Your task to perform on an android device: turn pop-ups on in chrome Image 0: 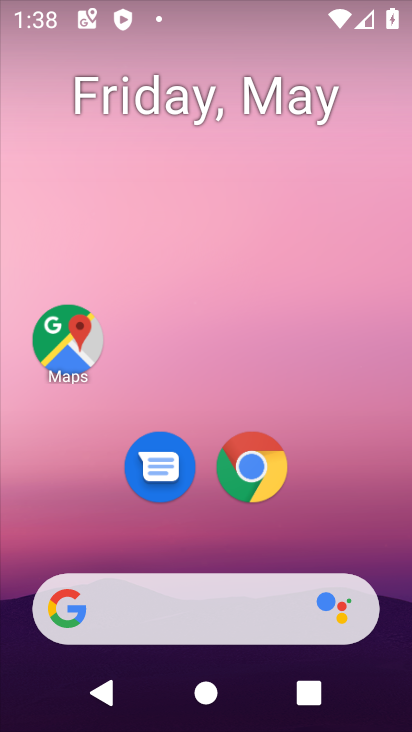
Step 0: click (253, 471)
Your task to perform on an android device: turn pop-ups on in chrome Image 1: 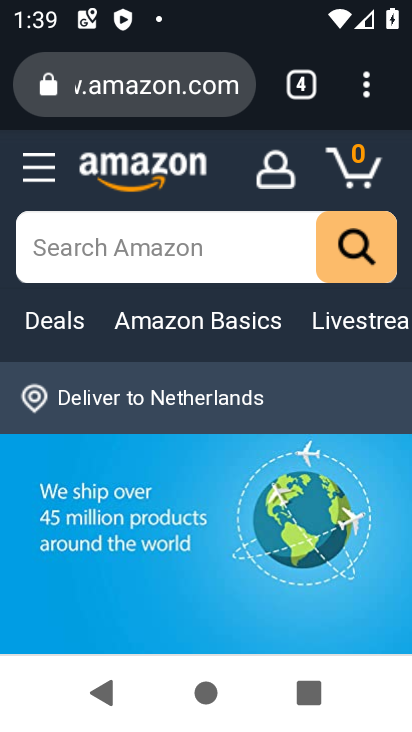
Step 1: click (367, 86)
Your task to perform on an android device: turn pop-ups on in chrome Image 2: 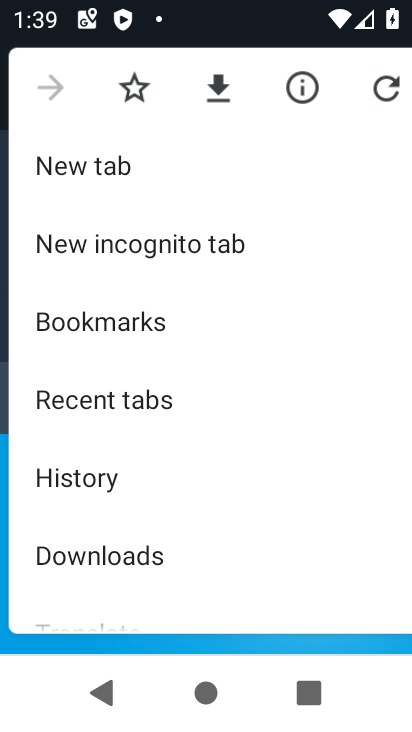
Step 2: drag from (192, 504) to (196, 304)
Your task to perform on an android device: turn pop-ups on in chrome Image 3: 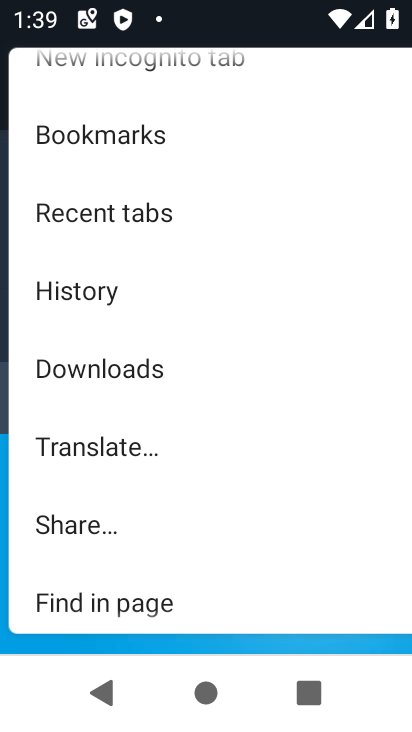
Step 3: drag from (183, 509) to (181, 331)
Your task to perform on an android device: turn pop-ups on in chrome Image 4: 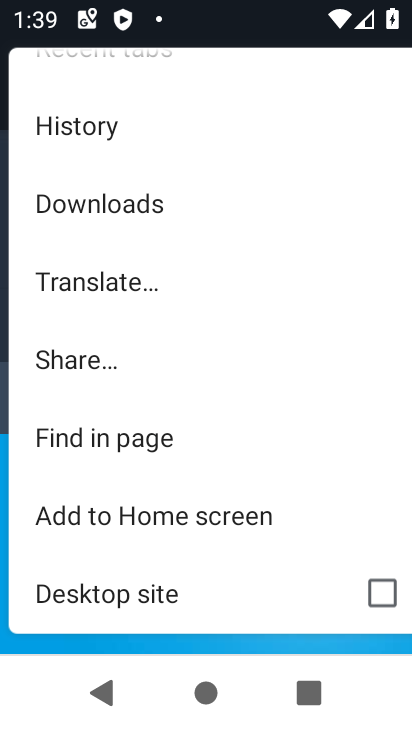
Step 4: drag from (179, 551) to (263, 380)
Your task to perform on an android device: turn pop-ups on in chrome Image 5: 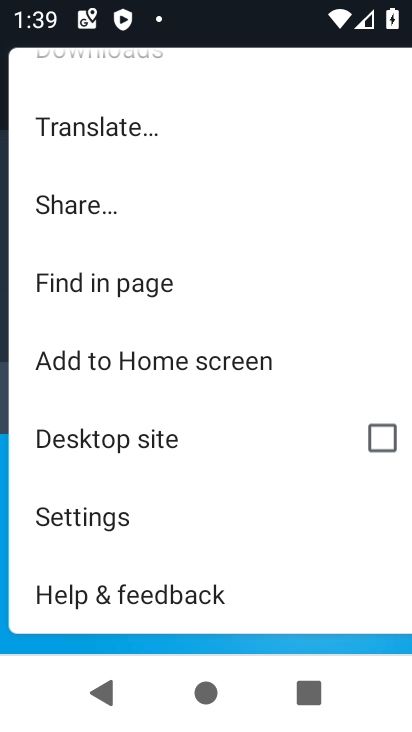
Step 5: click (114, 516)
Your task to perform on an android device: turn pop-ups on in chrome Image 6: 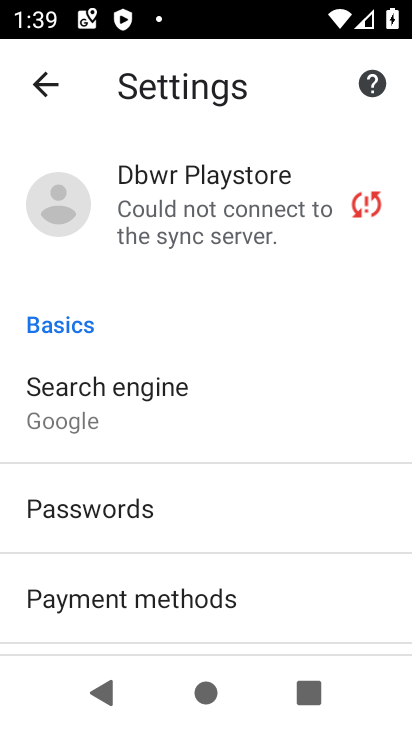
Step 6: drag from (173, 524) to (270, 395)
Your task to perform on an android device: turn pop-ups on in chrome Image 7: 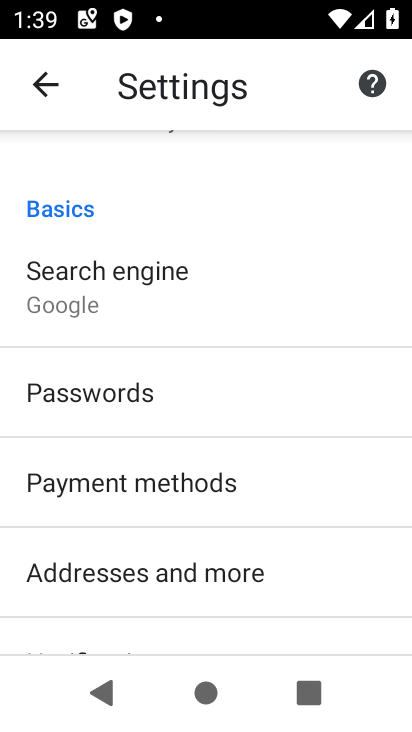
Step 7: drag from (194, 551) to (244, 444)
Your task to perform on an android device: turn pop-ups on in chrome Image 8: 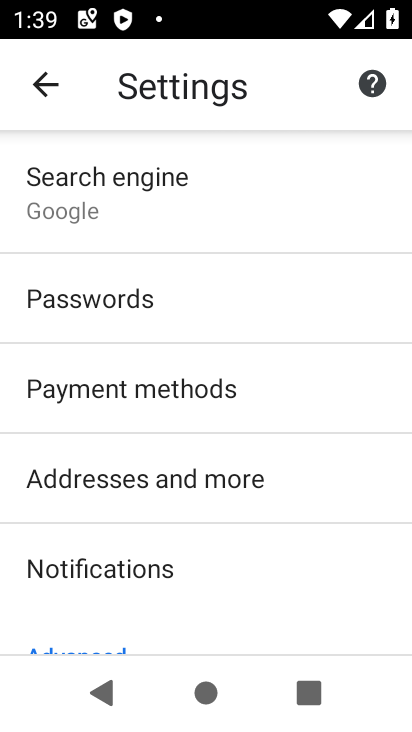
Step 8: drag from (187, 539) to (263, 419)
Your task to perform on an android device: turn pop-ups on in chrome Image 9: 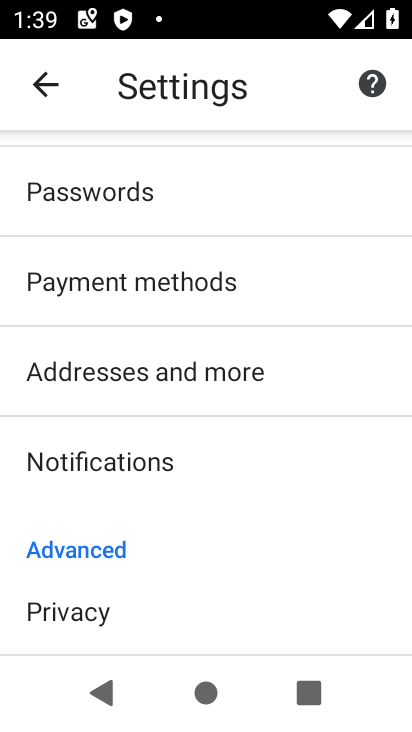
Step 9: drag from (215, 549) to (293, 407)
Your task to perform on an android device: turn pop-ups on in chrome Image 10: 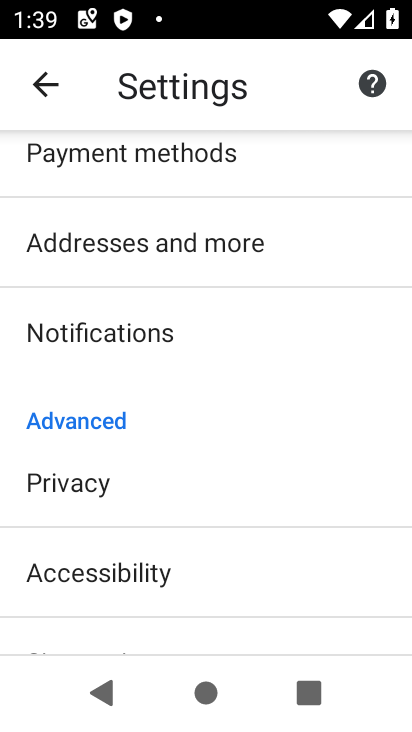
Step 10: drag from (173, 505) to (265, 351)
Your task to perform on an android device: turn pop-ups on in chrome Image 11: 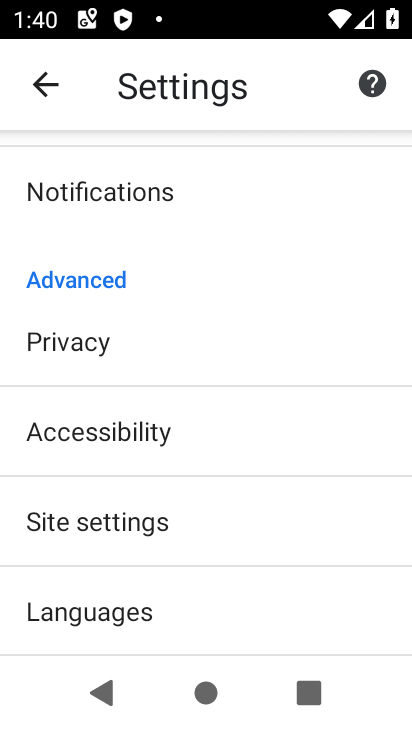
Step 11: drag from (164, 610) to (255, 474)
Your task to perform on an android device: turn pop-ups on in chrome Image 12: 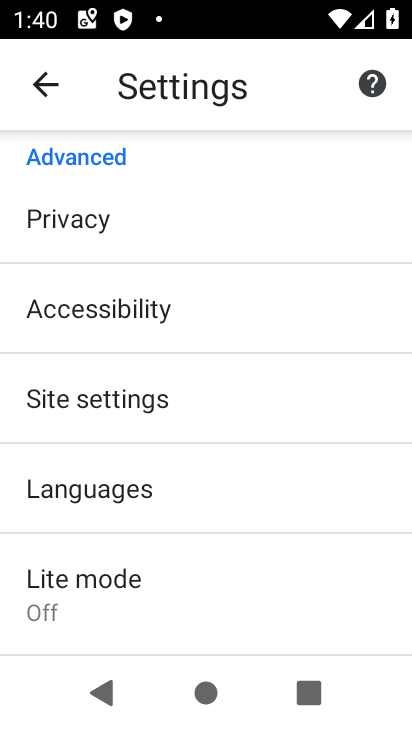
Step 12: click (106, 397)
Your task to perform on an android device: turn pop-ups on in chrome Image 13: 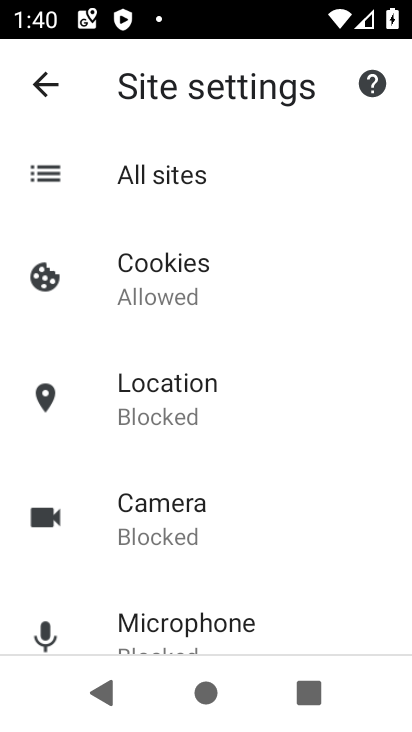
Step 13: drag from (234, 590) to (260, 429)
Your task to perform on an android device: turn pop-ups on in chrome Image 14: 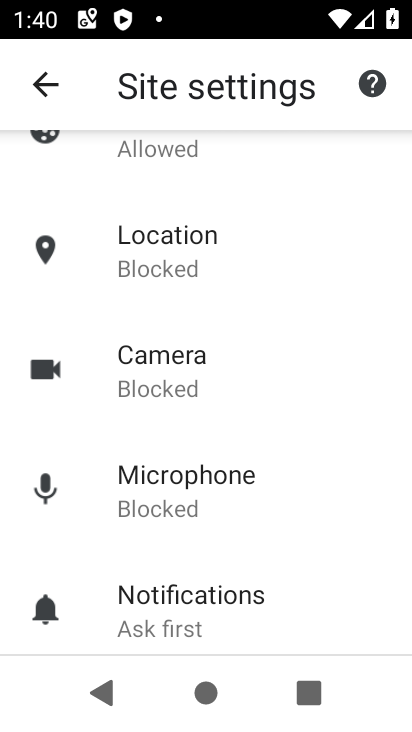
Step 14: drag from (238, 609) to (251, 448)
Your task to perform on an android device: turn pop-ups on in chrome Image 15: 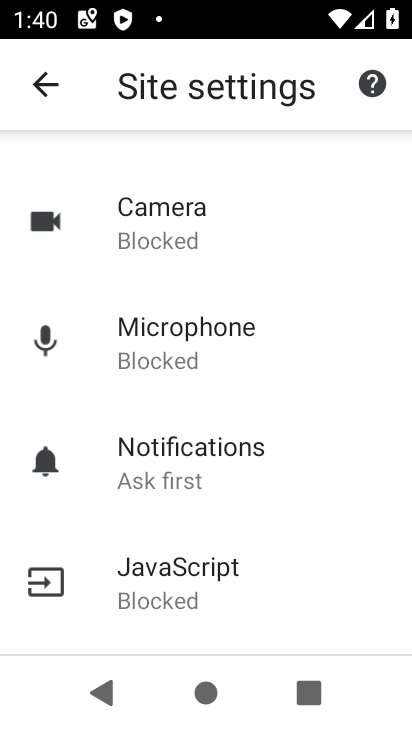
Step 15: drag from (232, 580) to (271, 363)
Your task to perform on an android device: turn pop-ups on in chrome Image 16: 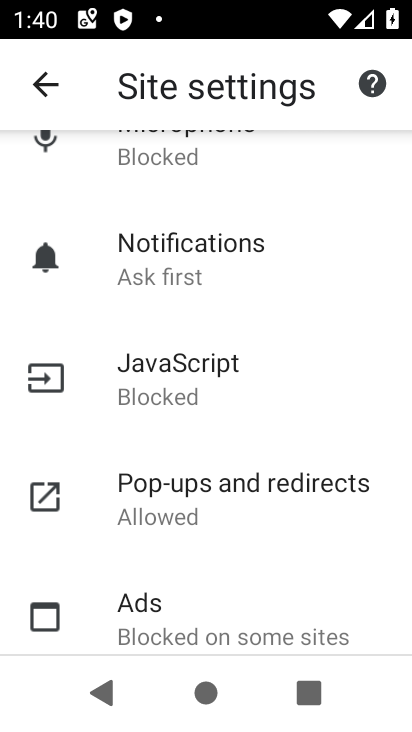
Step 16: click (212, 473)
Your task to perform on an android device: turn pop-ups on in chrome Image 17: 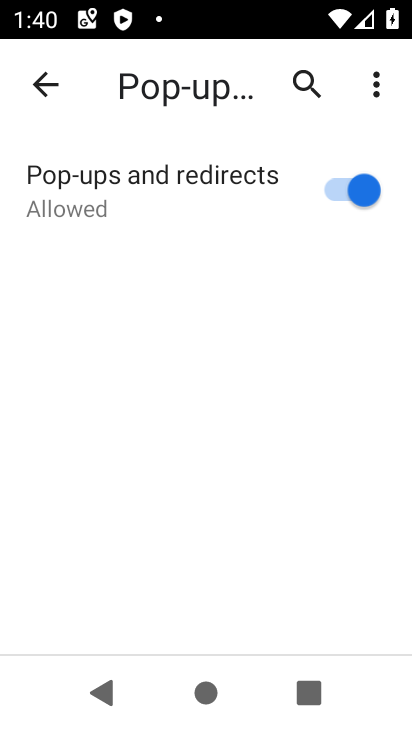
Step 17: click (357, 186)
Your task to perform on an android device: turn pop-ups on in chrome Image 18: 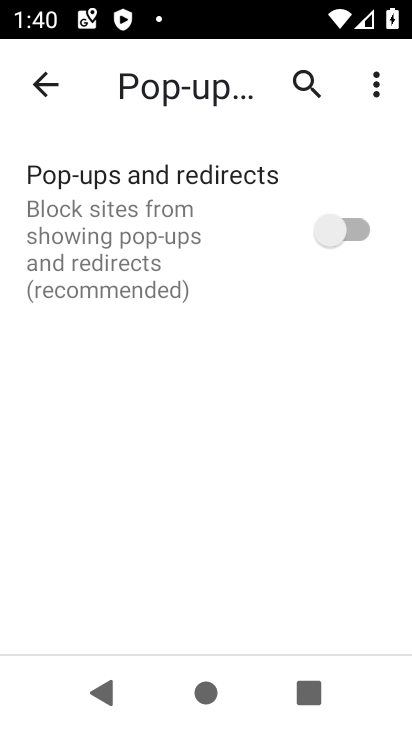
Step 18: task complete